Your task to perform on an android device: turn smart compose on in the gmail app Image 0: 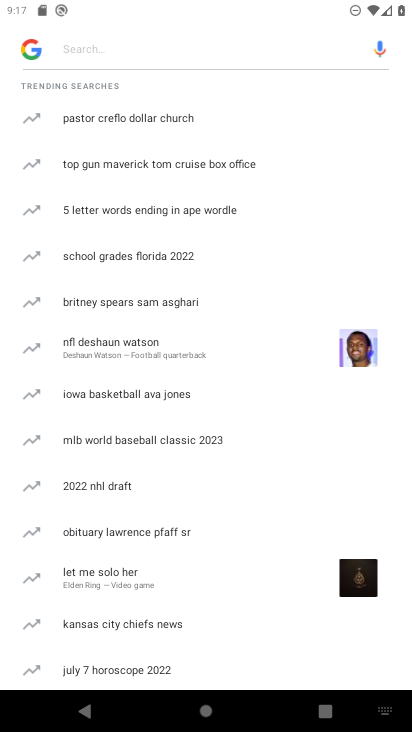
Step 0: press home button
Your task to perform on an android device: turn smart compose on in the gmail app Image 1: 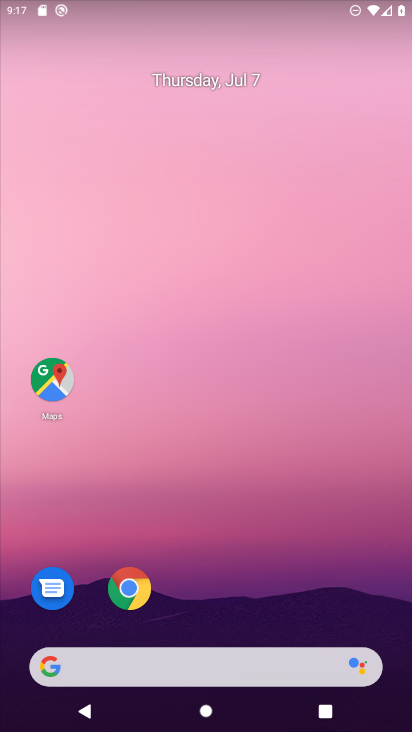
Step 1: drag from (258, 614) to (296, 96)
Your task to perform on an android device: turn smart compose on in the gmail app Image 2: 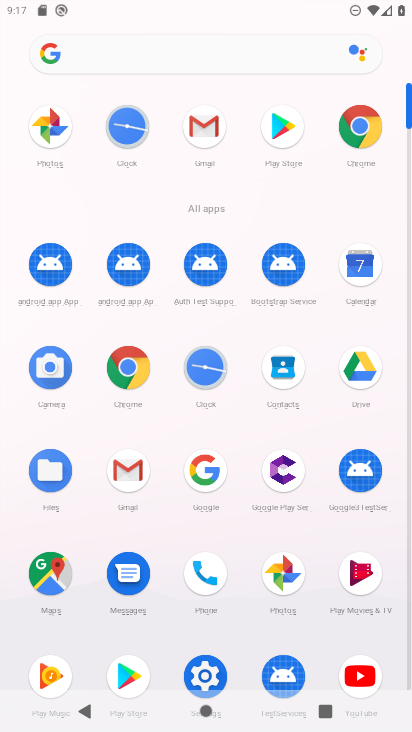
Step 2: click (215, 121)
Your task to perform on an android device: turn smart compose on in the gmail app Image 3: 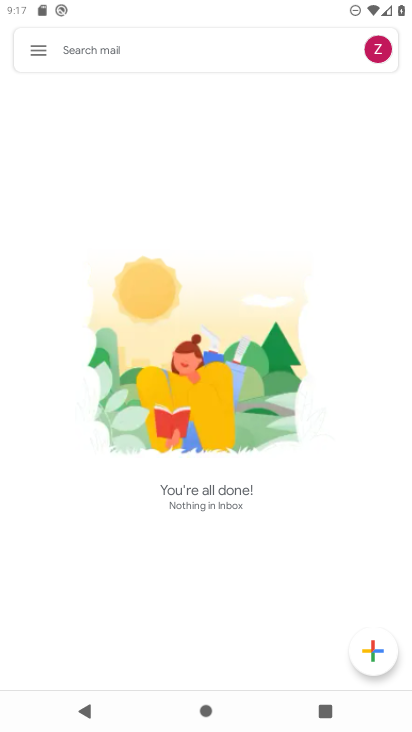
Step 3: click (37, 57)
Your task to perform on an android device: turn smart compose on in the gmail app Image 4: 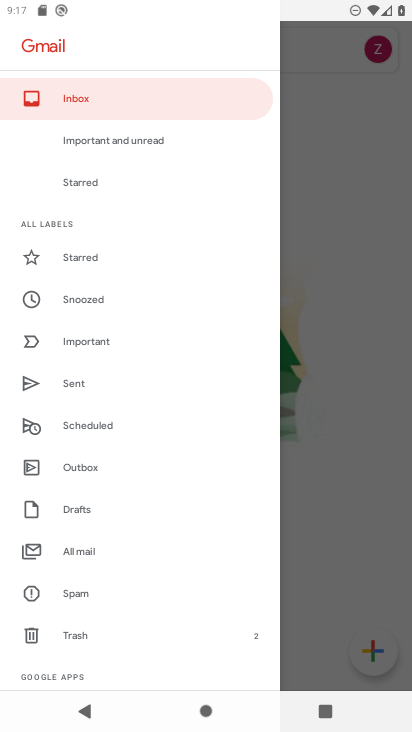
Step 4: drag from (106, 637) to (132, 182)
Your task to perform on an android device: turn smart compose on in the gmail app Image 5: 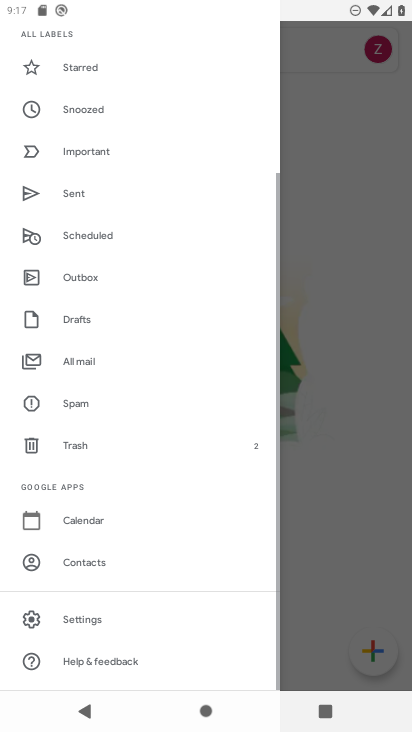
Step 5: click (125, 614)
Your task to perform on an android device: turn smart compose on in the gmail app Image 6: 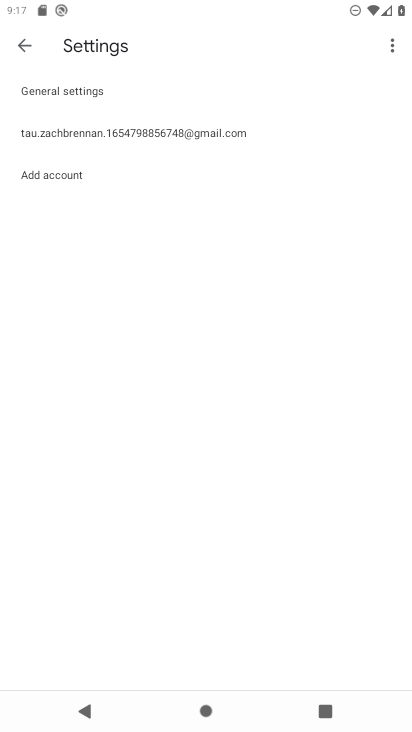
Step 6: click (261, 134)
Your task to perform on an android device: turn smart compose on in the gmail app Image 7: 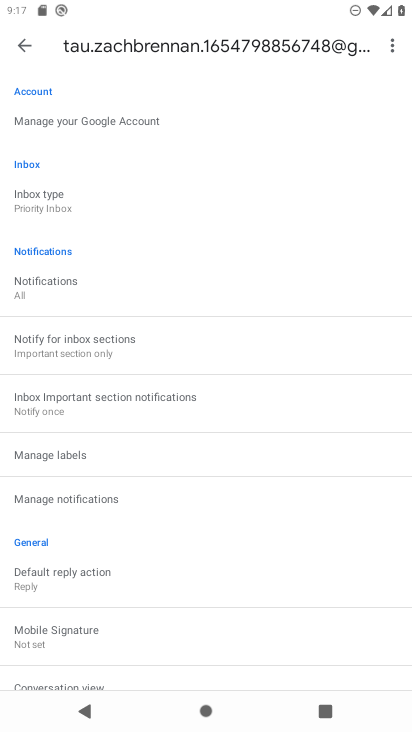
Step 7: task complete